Your task to perform on an android device: Go to settings Image 0: 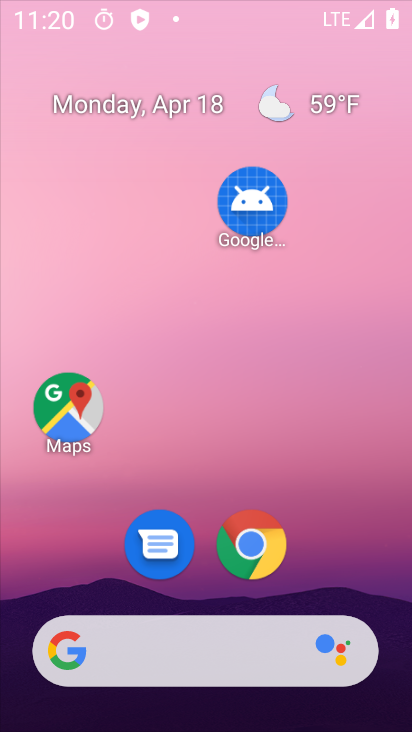
Step 0: click (308, 112)
Your task to perform on an android device: Go to settings Image 1: 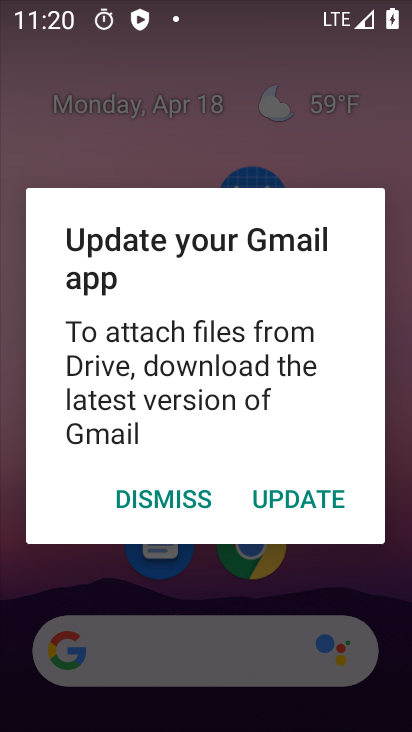
Step 1: click (180, 505)
Your task to perform on an android device: Go to settings Image 2: 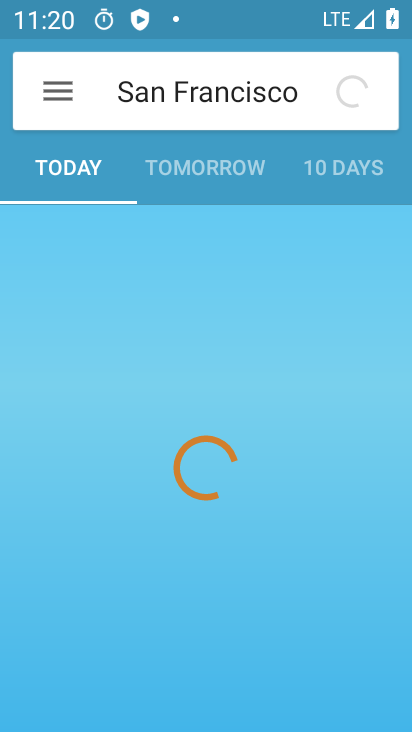
Step 2: drag from (356, 177) to (359, 122)
Your task to perform on an android device: Go to settings Image 3: 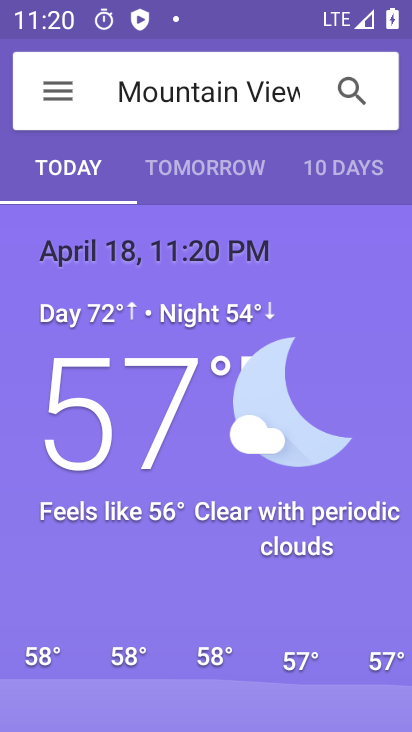
Step 3: press home button
Your task to perform on an android device: Go to settings Image 4: 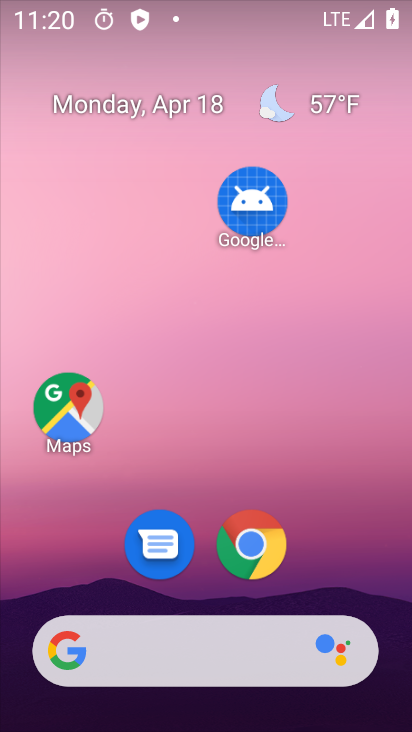
Step 4: drag from (277, 571) to (335, 93)
Your task to perform on an android device: Go to settings Image 5: 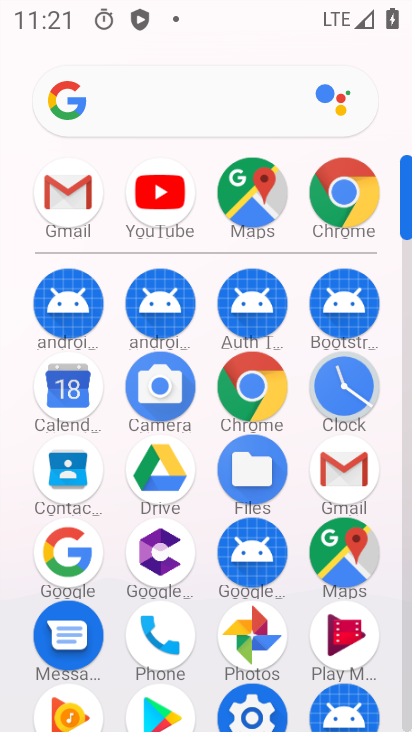
Step 5: click (261, 700)
Your task to perform on an android device: Go to settings Image 6: 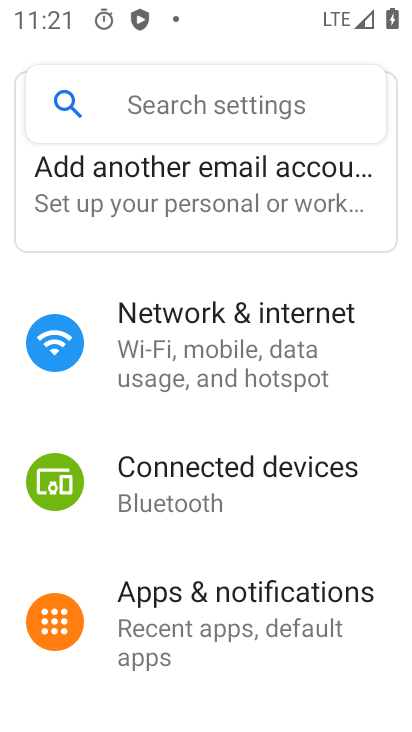
Step 6: task complete